Your task to perform on an android device: open app "McDonald's" (install if not already installed) Image 0: 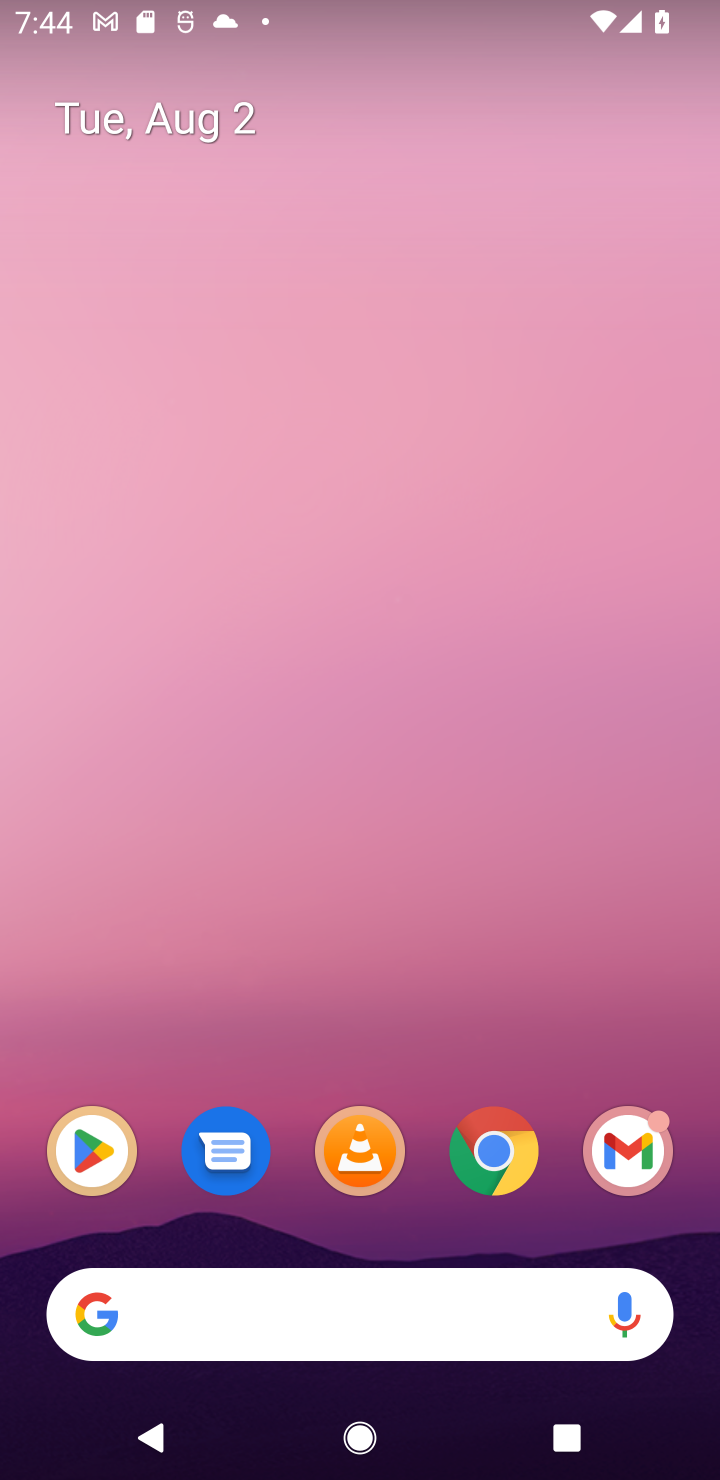
Step 0: click (90, 1133)
Your task to perform on an android device: open app "McDonald's" (install if not already installed) Image 1: 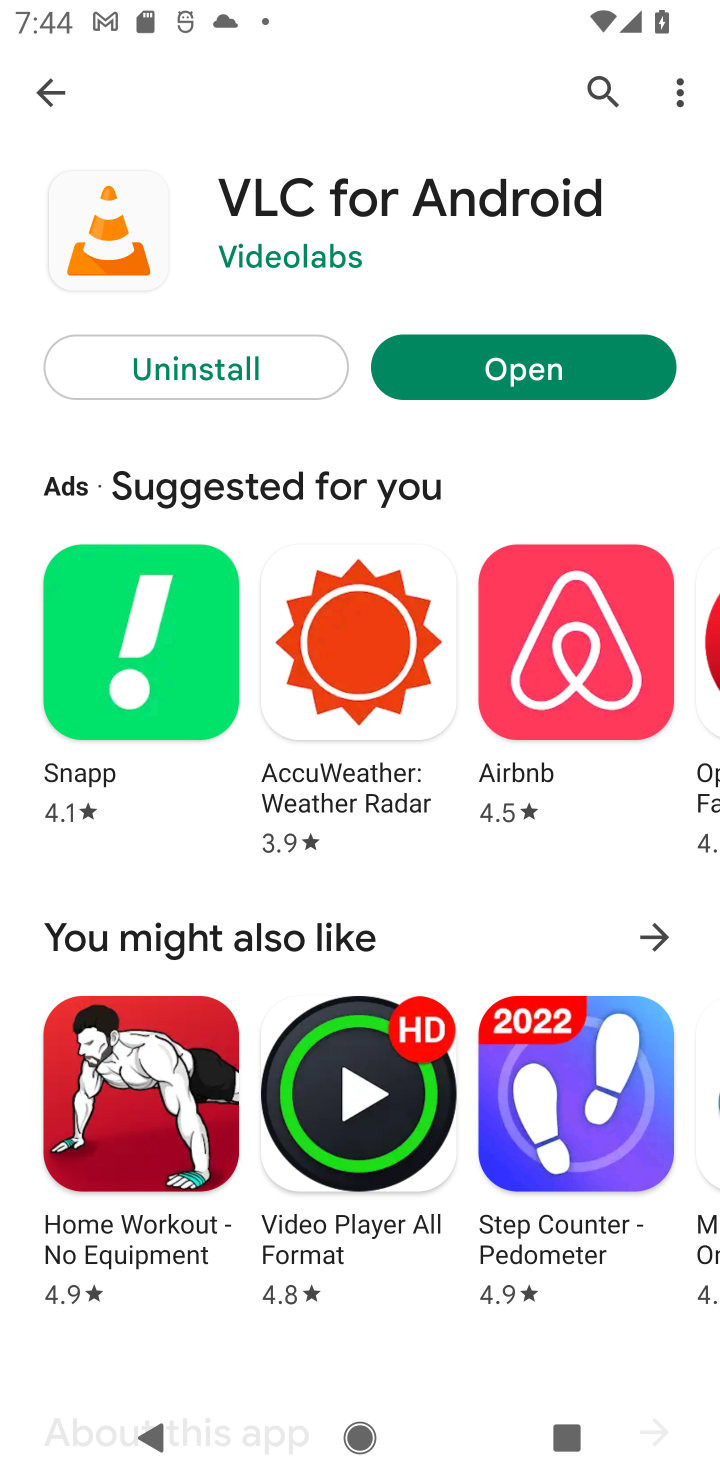
Step 1: click (590, 92)
Your task to perform on an android device: open app "McDonald's" (install if not already installed) Image 2: 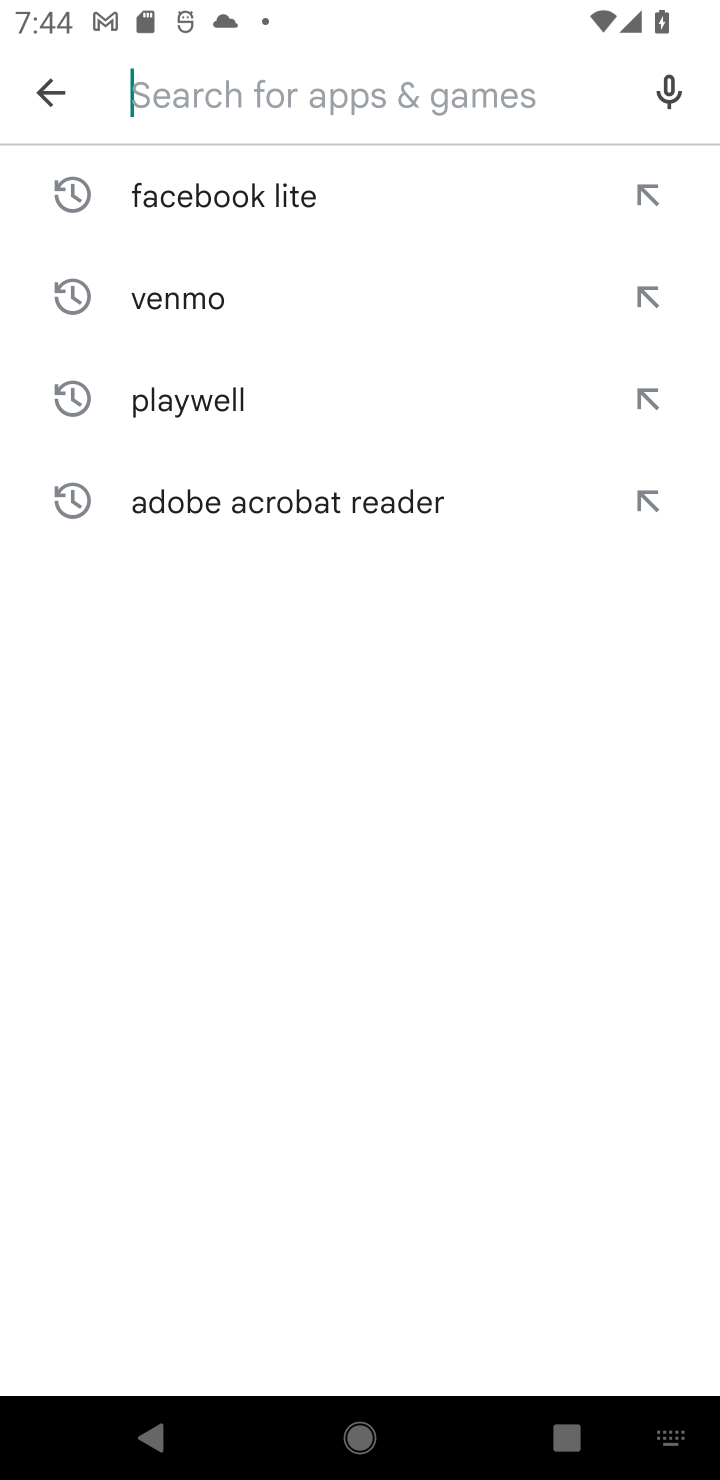
Step 2: type "McDonald's"
Your task to perform on an android device: open app "McDonald's" (install if not already installed) Image 3: 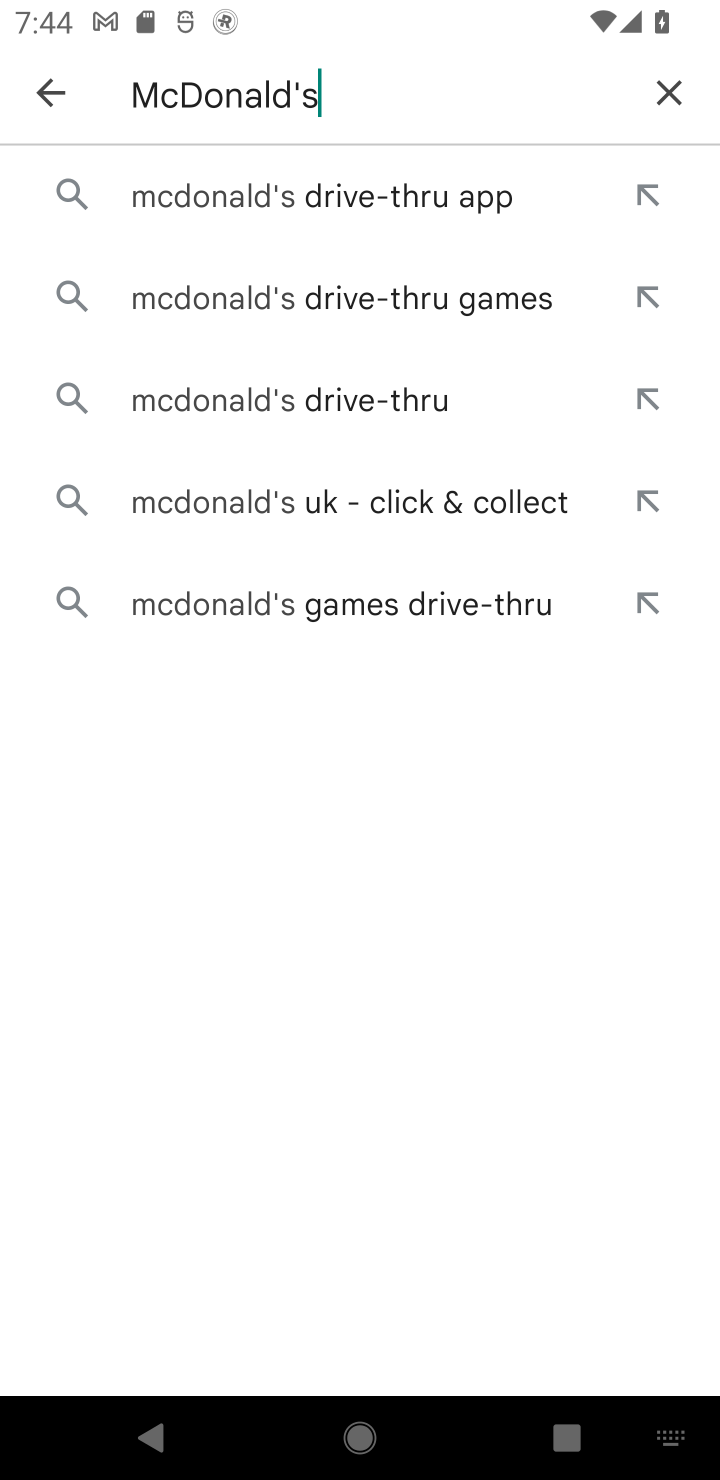
Step 3: click (275, 202)
Your task to perform on an android device: open app "McDonald's" (install if not already installed) Image 4: 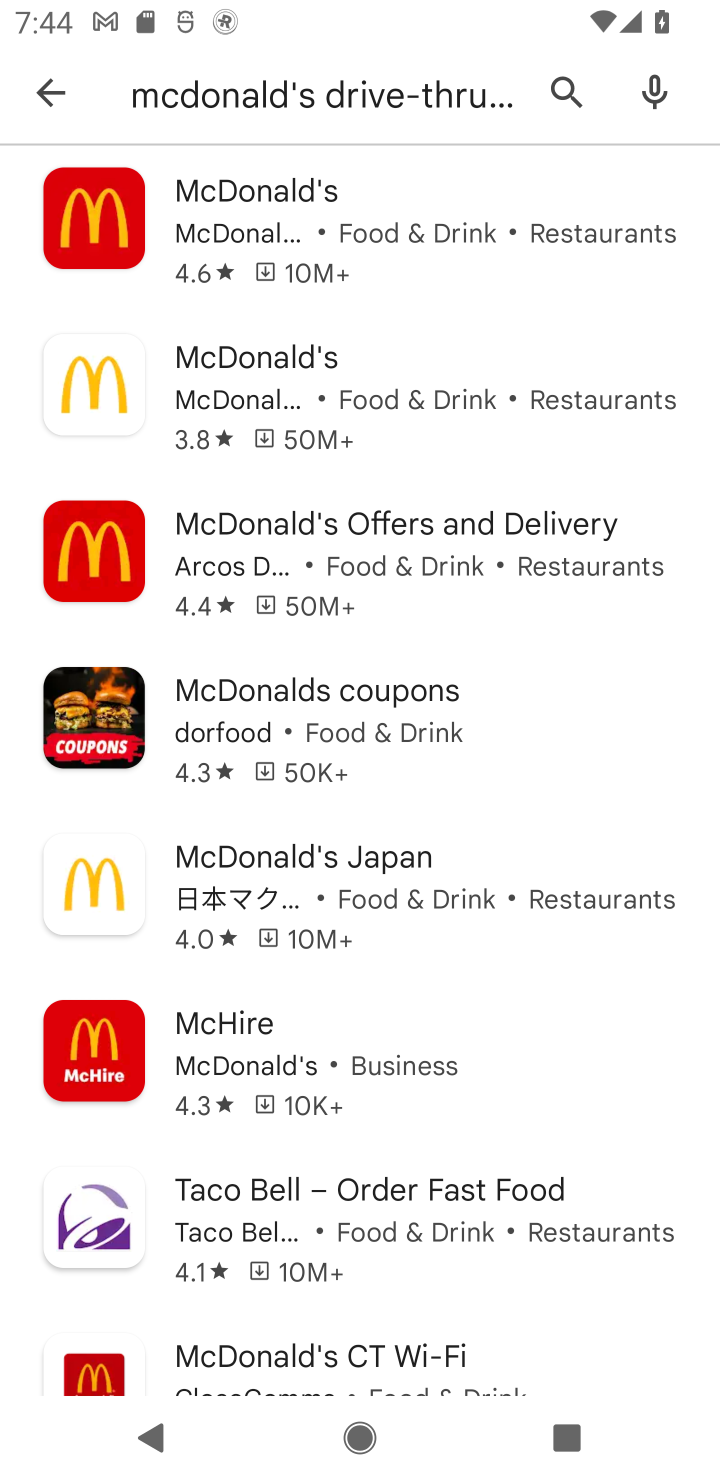
Step 4: click (275, 202)
Your task to perform on an android device: open app "McDonald's" (install if not already installed) Image 5: 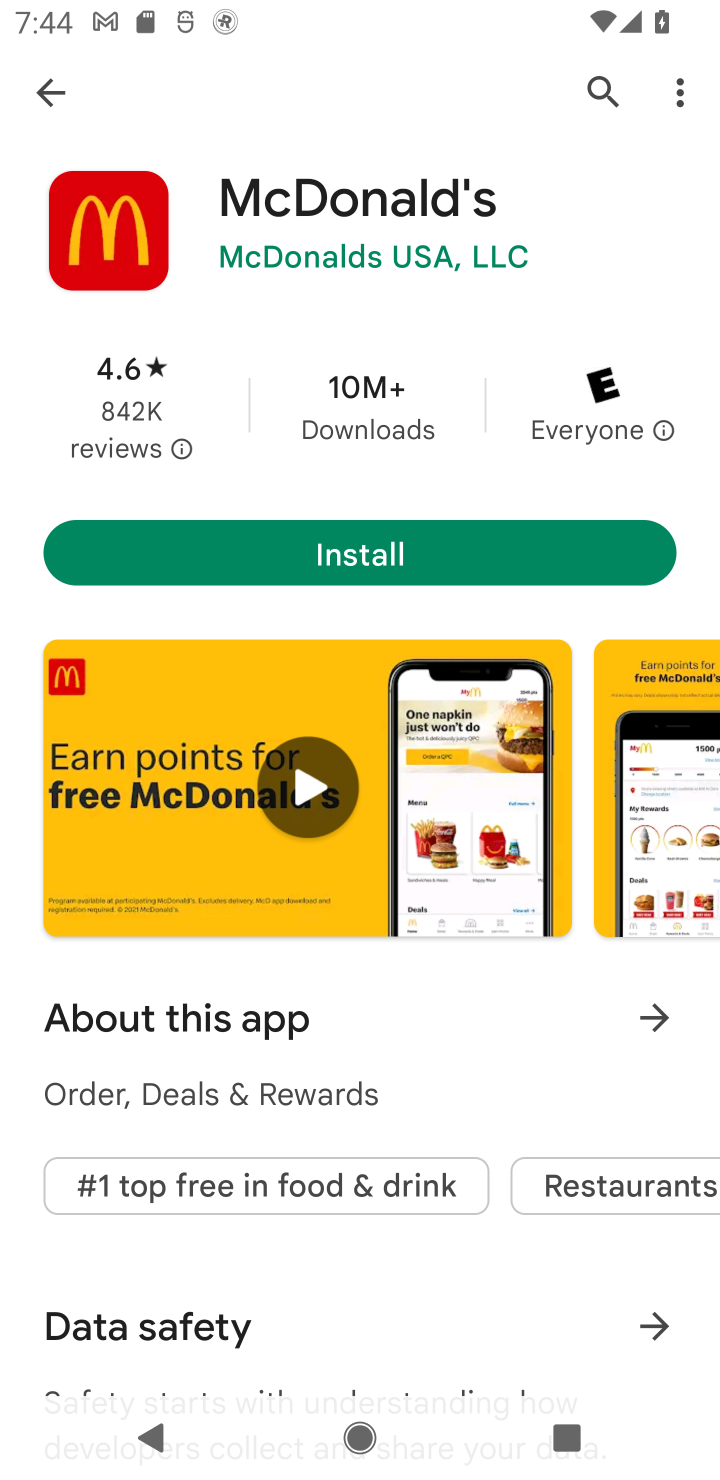
Step 5: click (345, 573)
Your task to perform on an android device: open app "McDonald's" (install if not already installed) Image 6: 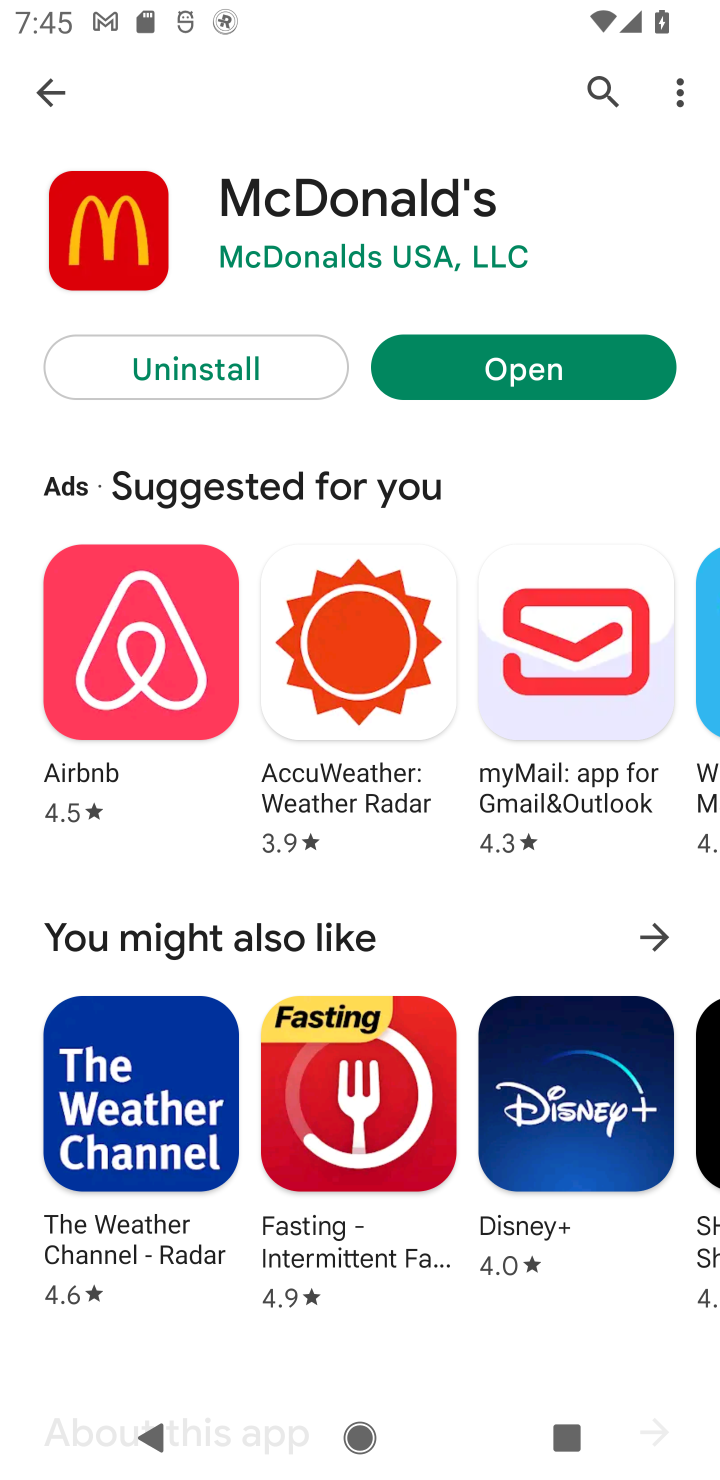
Step 6: click (541, 393)
Your task to perform on an android device: open app "McDonald's" (install if not already installed) Image 7: 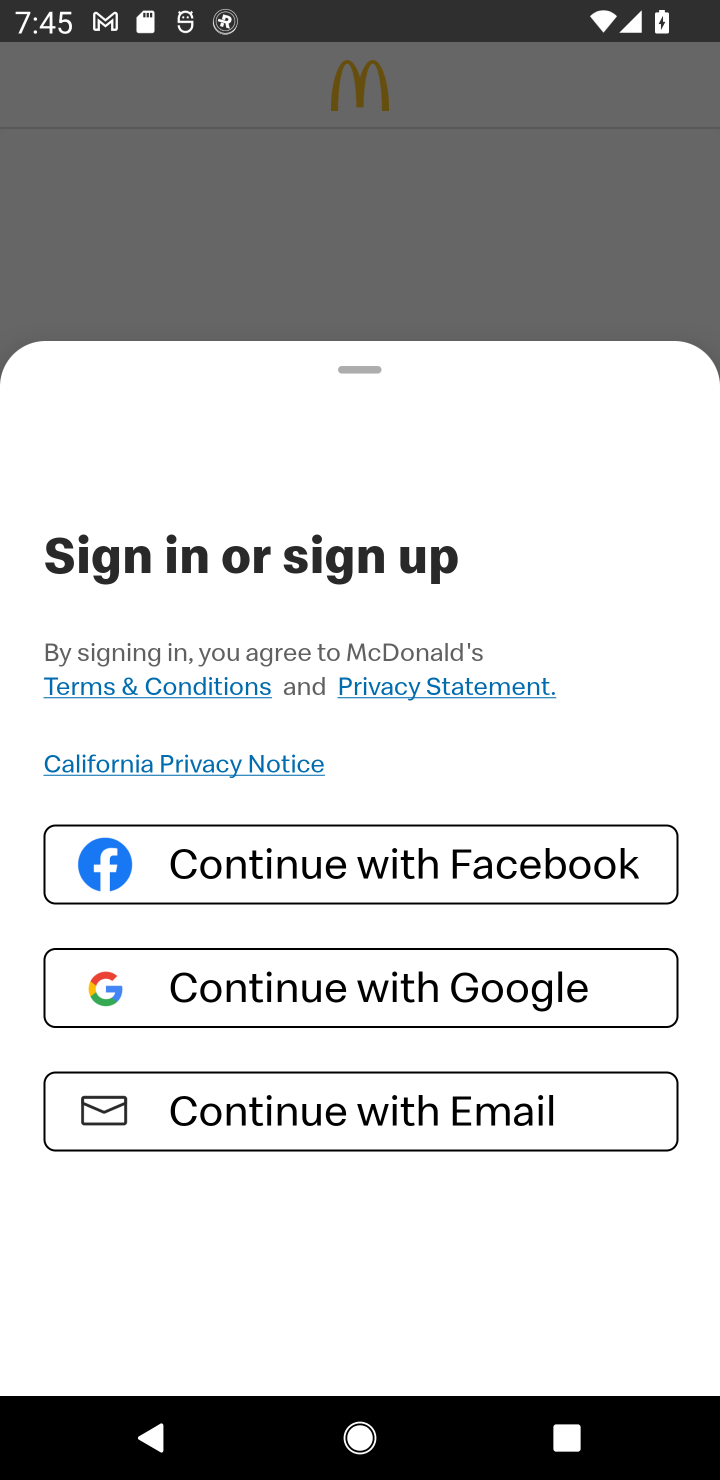
Step 7: task complete